Your task to perform on an android device: What's the weather going to be this weekend? Image 0: 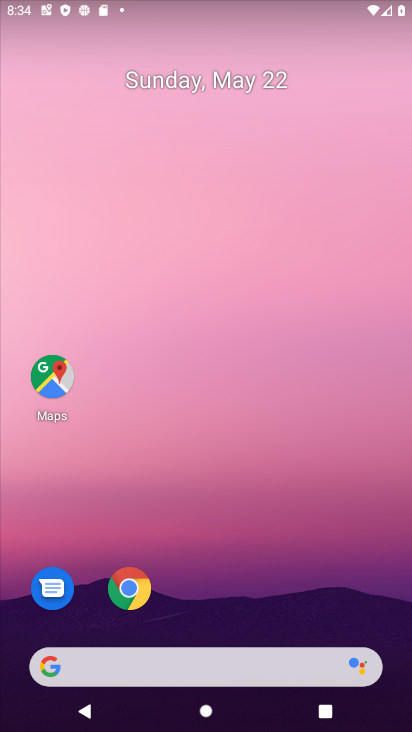
Step 0: click (179, 659)
Your task to perform on an android device: What's the weather going to be this weekend? Image 1: 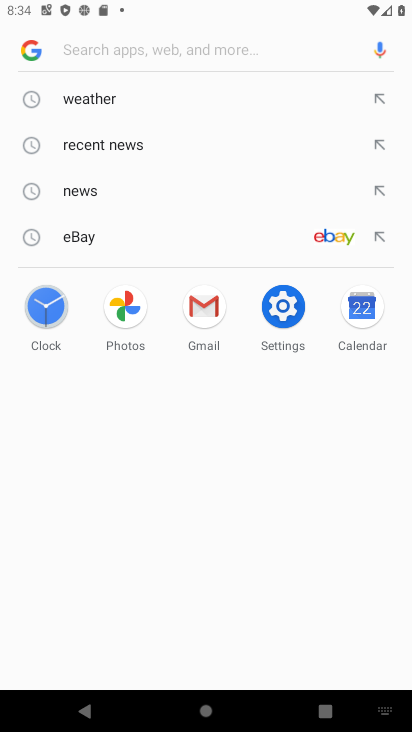
Step 1: click (107, 98)
Your task to perform on an android device: What's the weather going to be this weekend? Image 2: 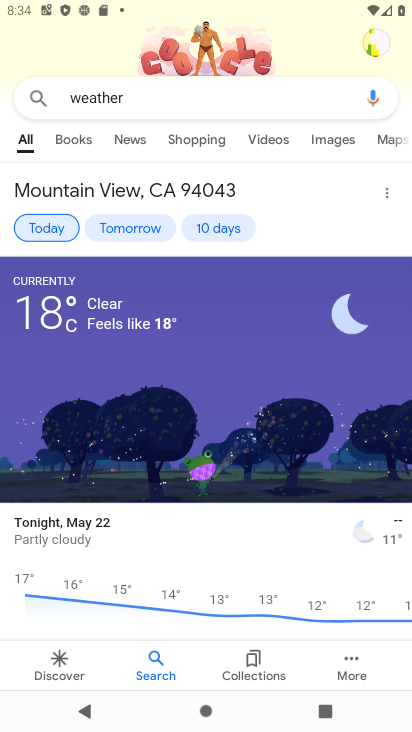
Step 2: click (227, 235)
Your task to perform on an android device: What's the weather going to be this weekend? Image 3: 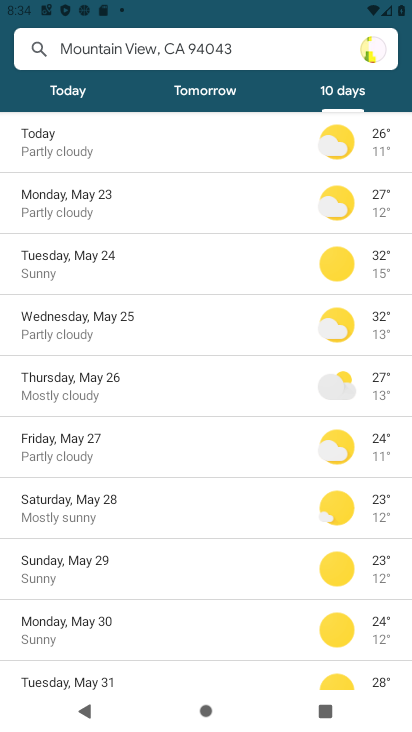
Step 3: task complete